Your task to perform on an android device: Go to calendar. Show me events next week Image 0: 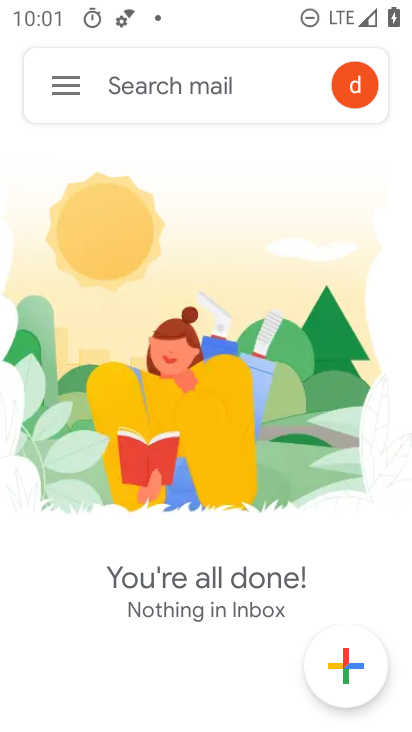
Step 0: press home button
Your task to perform on an android device: Go to calendar. Show me events next week Image 1: 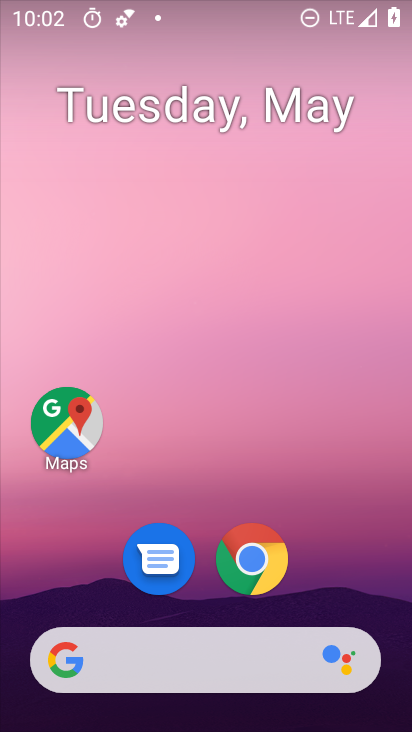
Step 1: drag from (390, 651) to (409, 597)
Your task to perform on an android device: Go to calendar. Show me events next week Image 2: 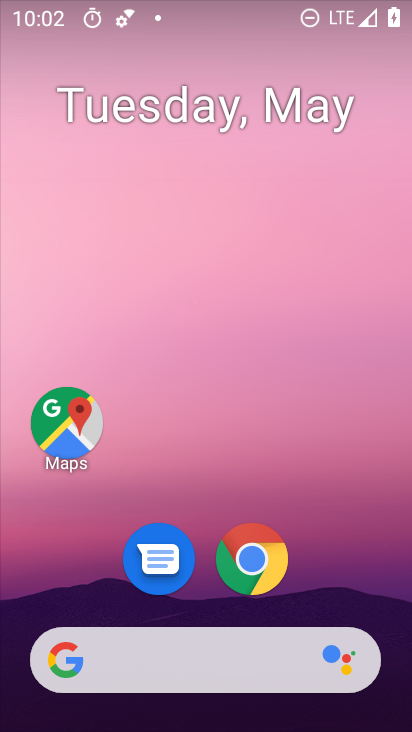
Step 2: drag from (400, 604) to (333, 63)
Your task to perform on an android device: Go to calendar. Show me events next week Image 3: 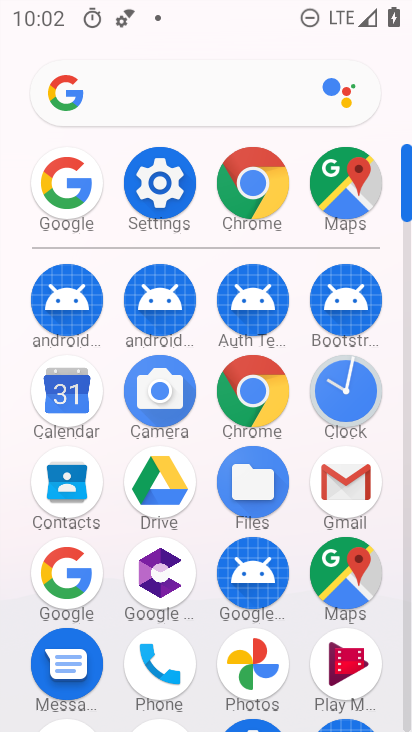
Step 3: click (85, 399)
Your task to perform on an android device: Go to calendar. Show me events next week Image 4: 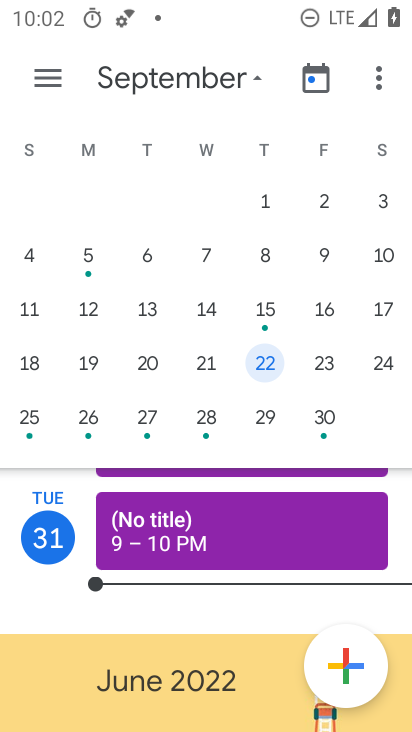
Step 4: task complete